Your task to perform on an android device: Check the news Image 0: 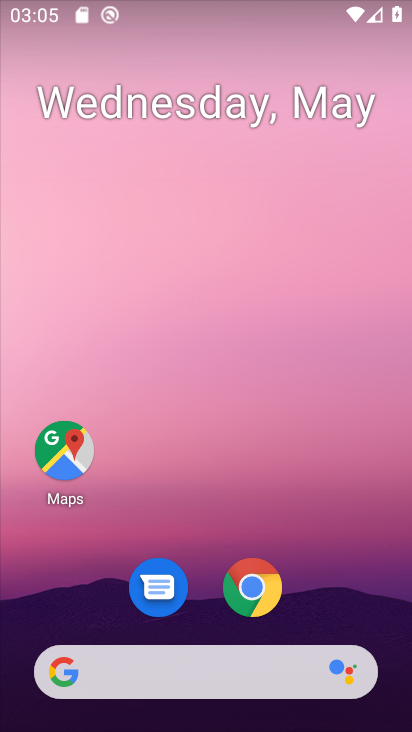
Step 0: drag from (13, 315) to (411, 267)
Your task to perform on an android device: Check the news Image 1: 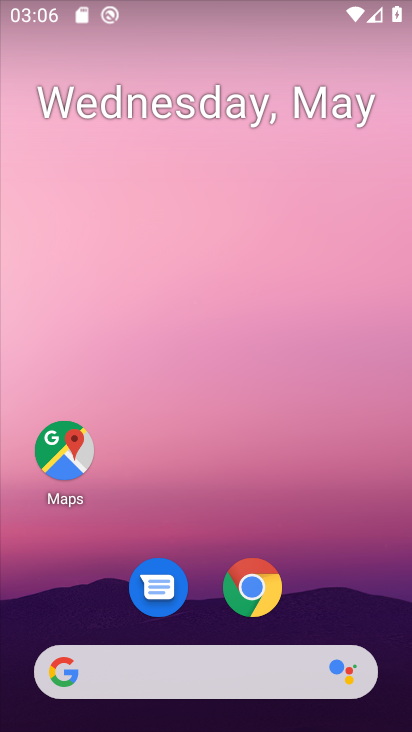
Step 1: task complete